Your task to perform on an android device: Search for vegetarian restaurants on Maps Image 0: 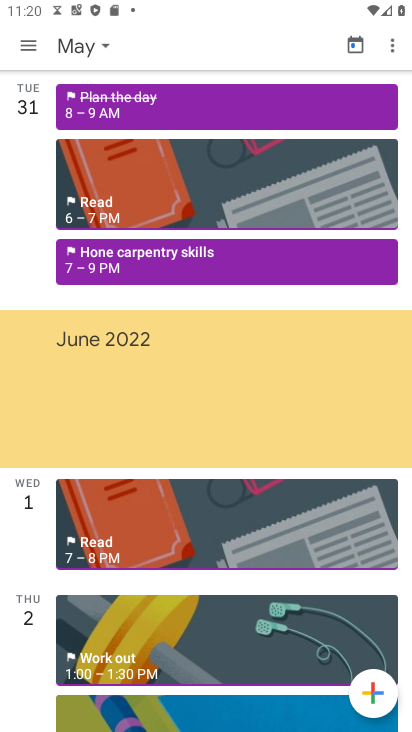
Step 0: press home button
Your task to perform on an android device: Search for vegetarian restaurants on Maps Image 1: 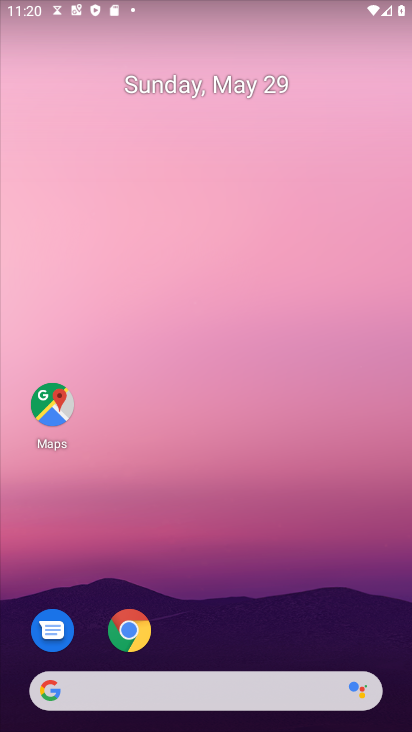
Step 1: click (54, 414)
Your task to perform on an android device: Search for vegetarian restaurants on Maps Image 2: 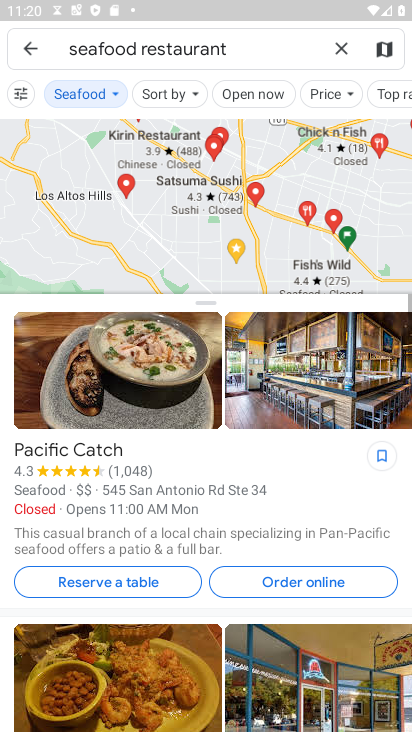
Step 2: click (335, 44)
Your task to perform on an android device: Search for vegetarian restaurants on Maps Image 3: 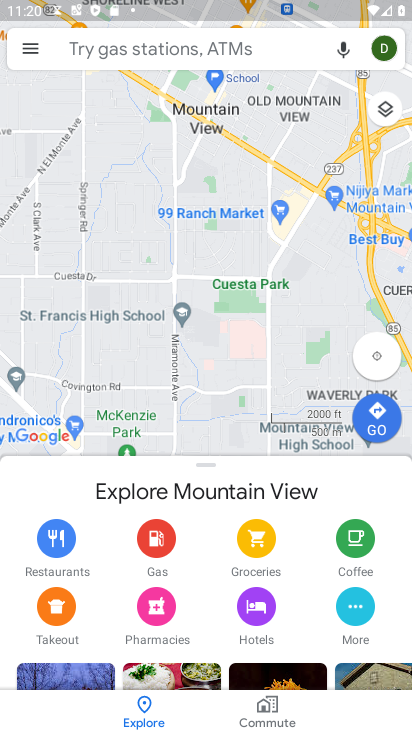
Step 3: click (227, 49)
Your task to perform on an android device: Search for vegetarian restaurants on Maps Image 4: 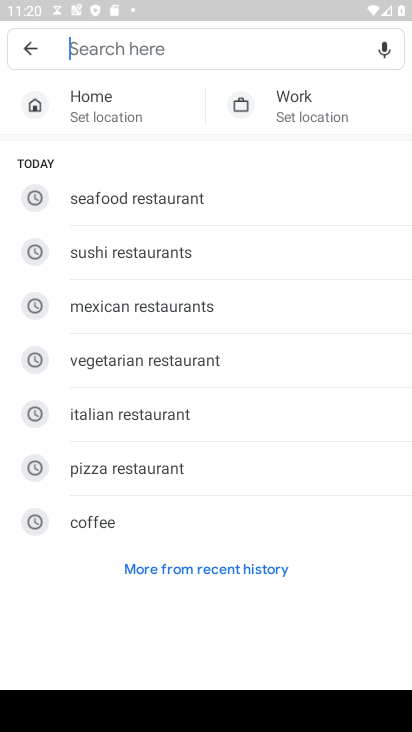
Step 4: click (231, 352)
Your task to perform on an android device: Search for vegetarian restaurants on Maps Image 5: 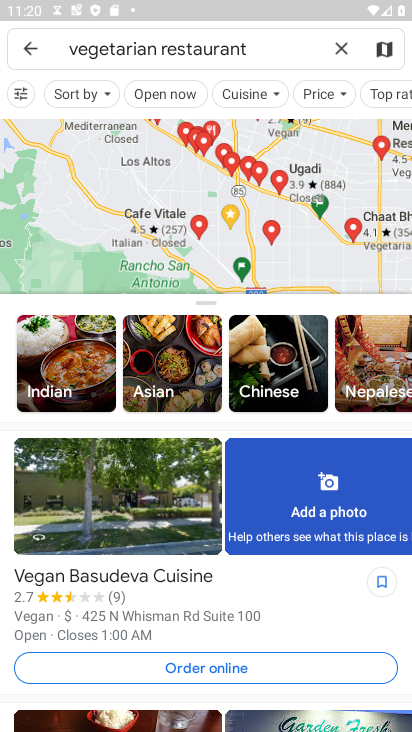
Step 5: task complete